Your task to perform on an android device: Open maps Image 0: 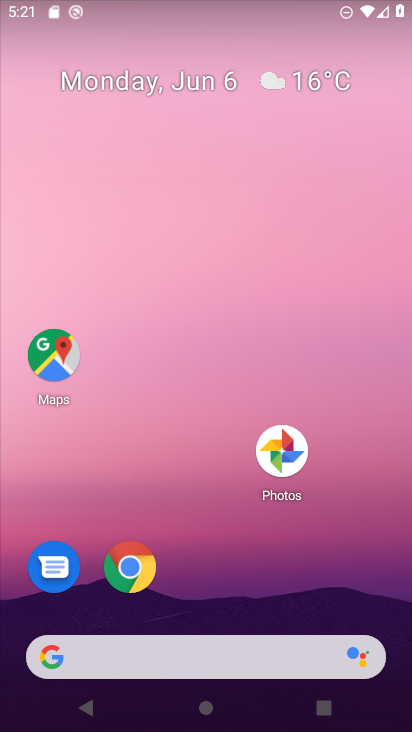
Step 0: drag from (264, 718) to (146, 104)
Your task to perform on an android device: Open maps Image 1: 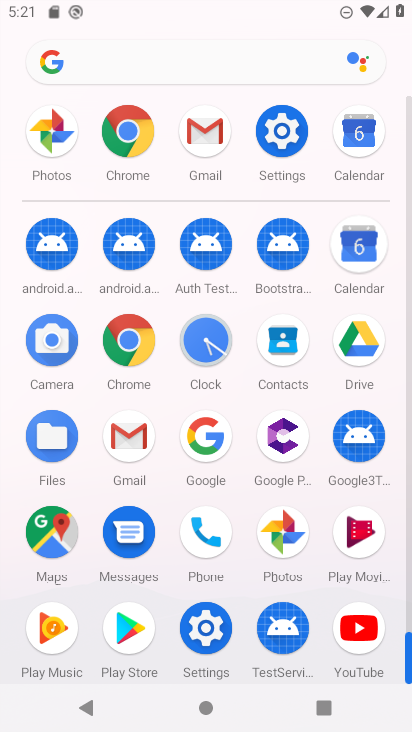
Step 1: click (56, 540)
Your task to perform on an android device: Open maps Image 2: 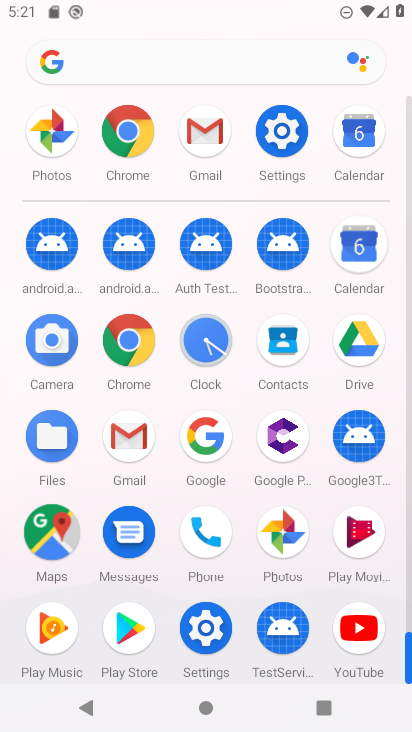
Step 2: click (56, 539)
Your task to perform on an android device: Open maps Image 3: 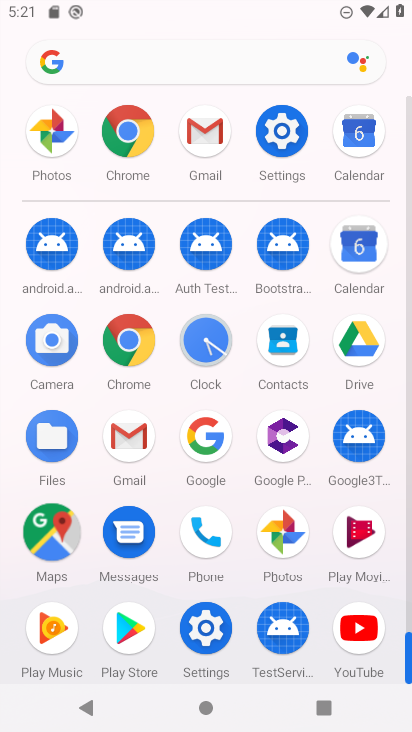
Step 3: click (56, 539)
Your task to perform on an android device: Open maps Image 4: 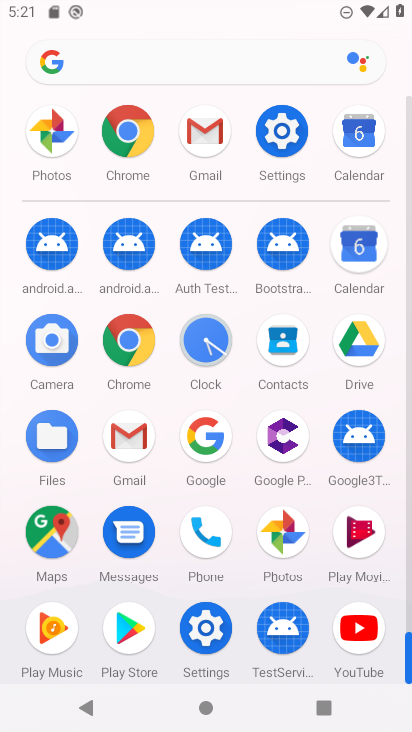
Step 4: click (56, 539)
Your task to perform on an android device: Open maps Image 5: 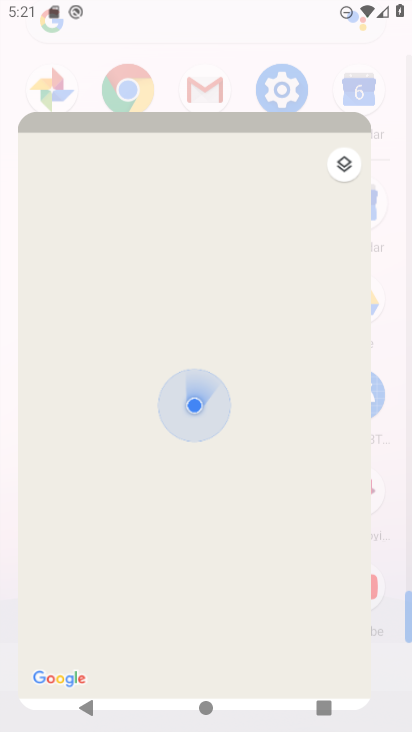
Step 5: click (56, 539)
Your task to perform on an android device: Open maps Image 6: 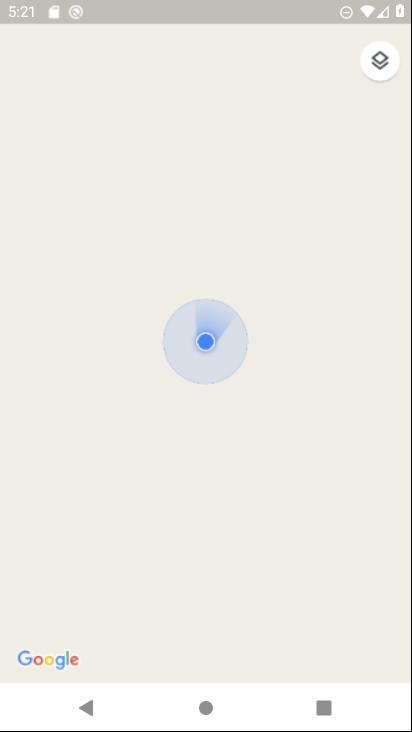
Step 6: click (54, 539)
Your task to perform on an android device: Open maps Image 7: 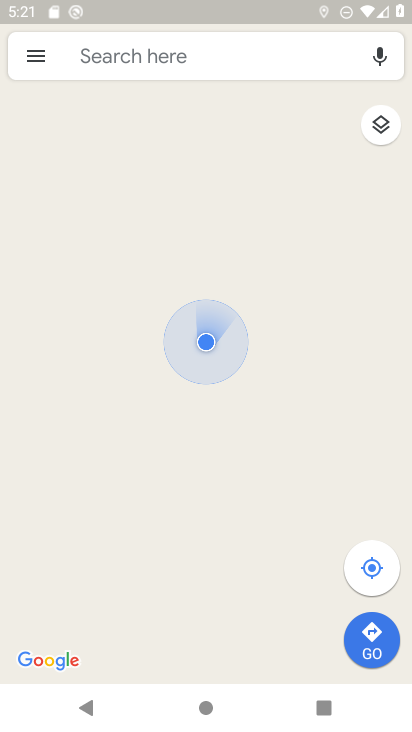
Step 7: task complete